Your task to perform on an android device: open app "Truecaller" (install if not already installed) Image 0: 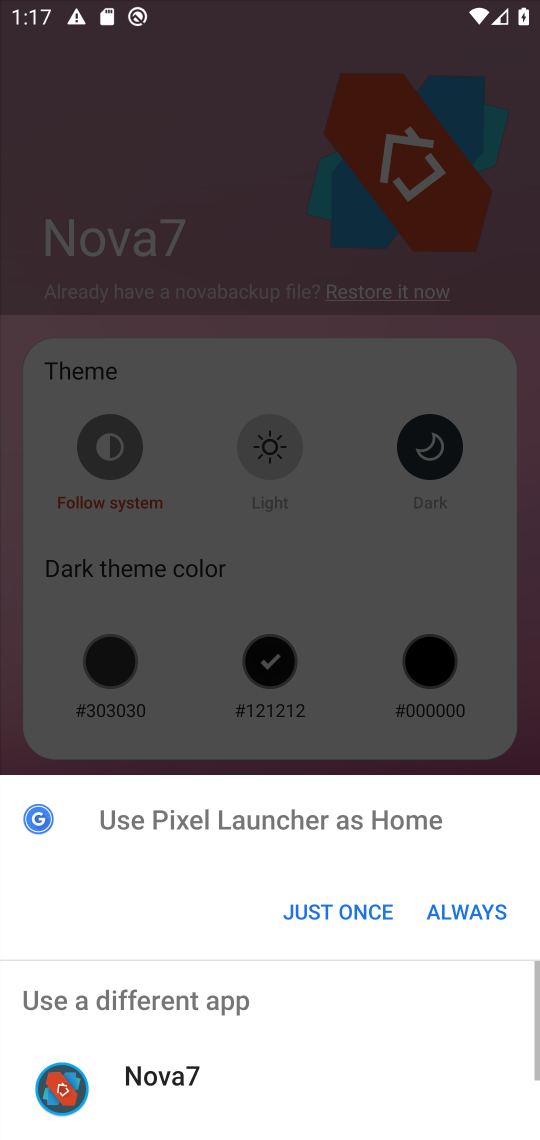
Step 0: press home button
Your task to perform on an android device: open app "Truecaller" (install if not already installed) Image 1: 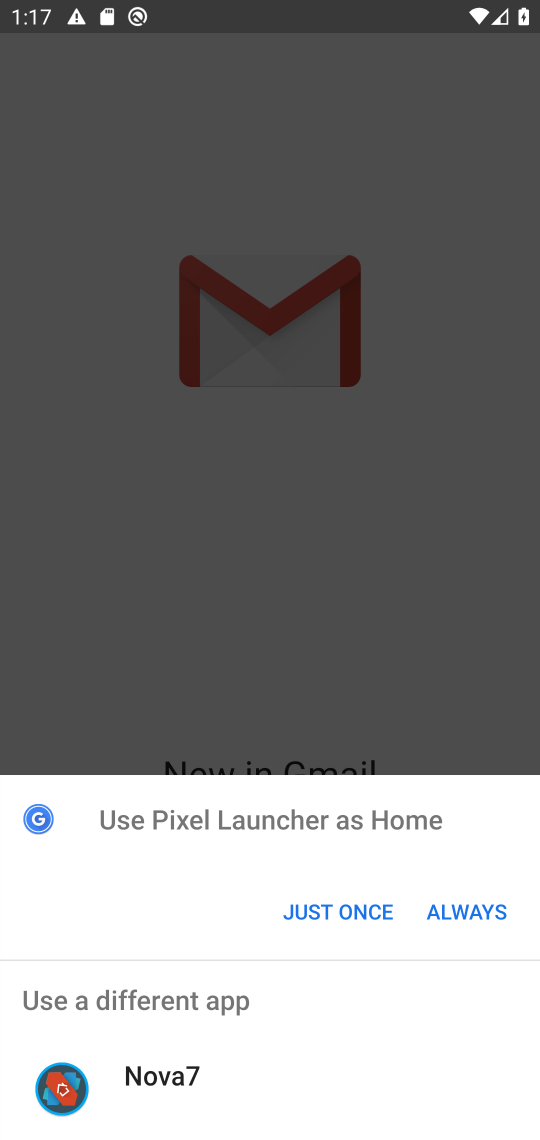
Step 1: click (355, 916)
Your task to perform on an android device: open app "Truecaller" (install if not already installed) Image 2: 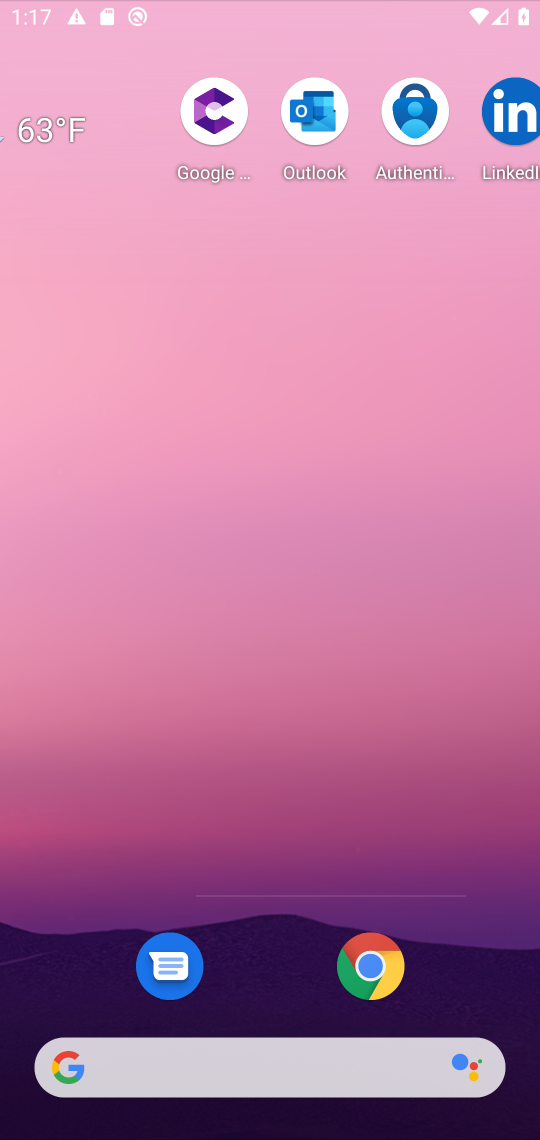
Step 2: press home button
Your task to perform on an android device: open app "Truecaller" (install if not already installed) Image 3: 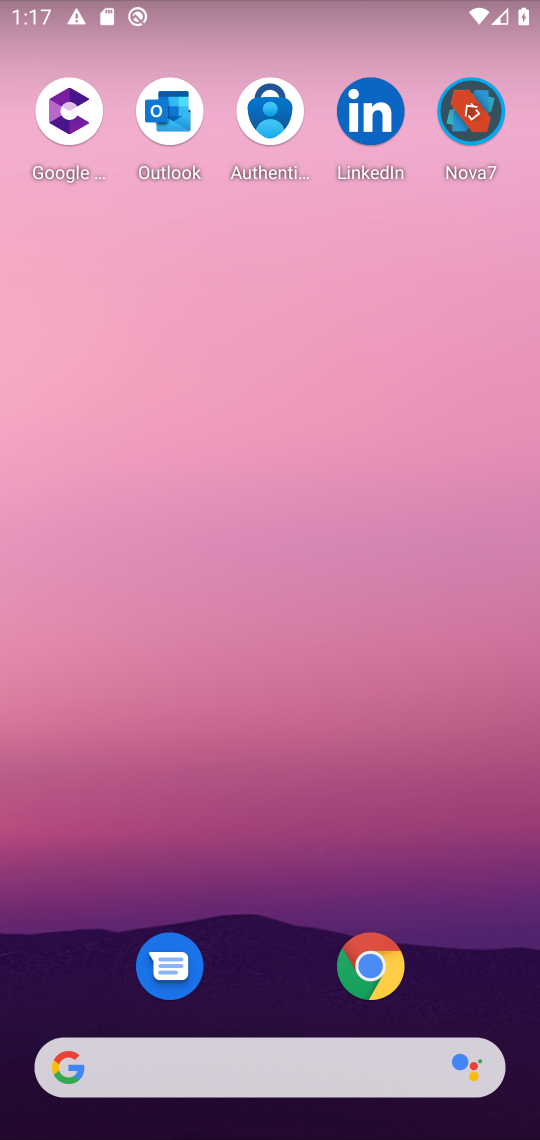
Step 3: click (347, 51)
Your task to perform on an android device: open app "Truecaller" (install if not already installed) Image 4: 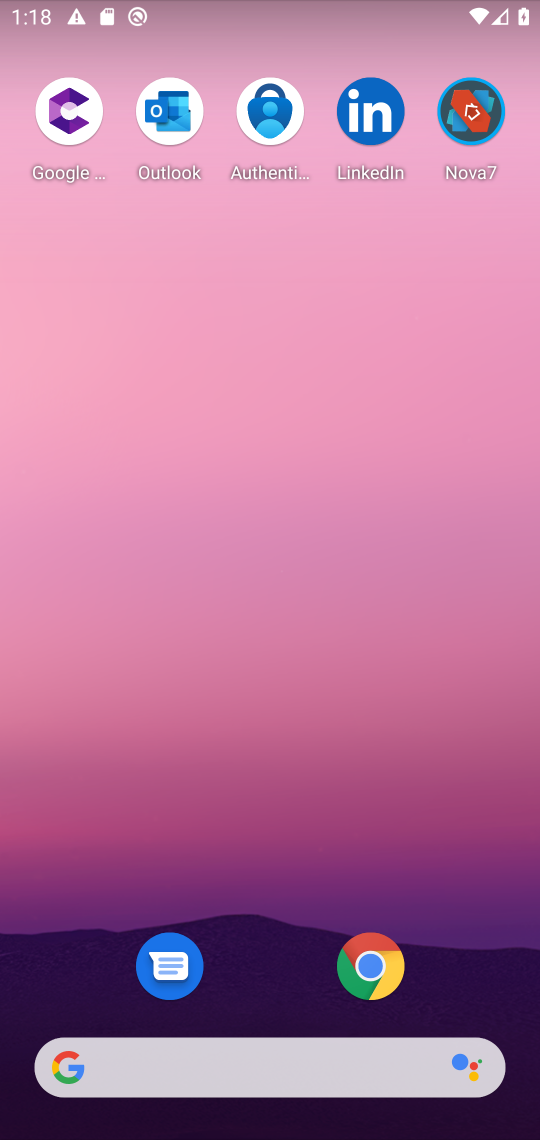
Step 4: drag from (281, 933) to (352, 40)
Your task to perform on an android device: open app "Truecaller" (install if not already installed) Image 5: 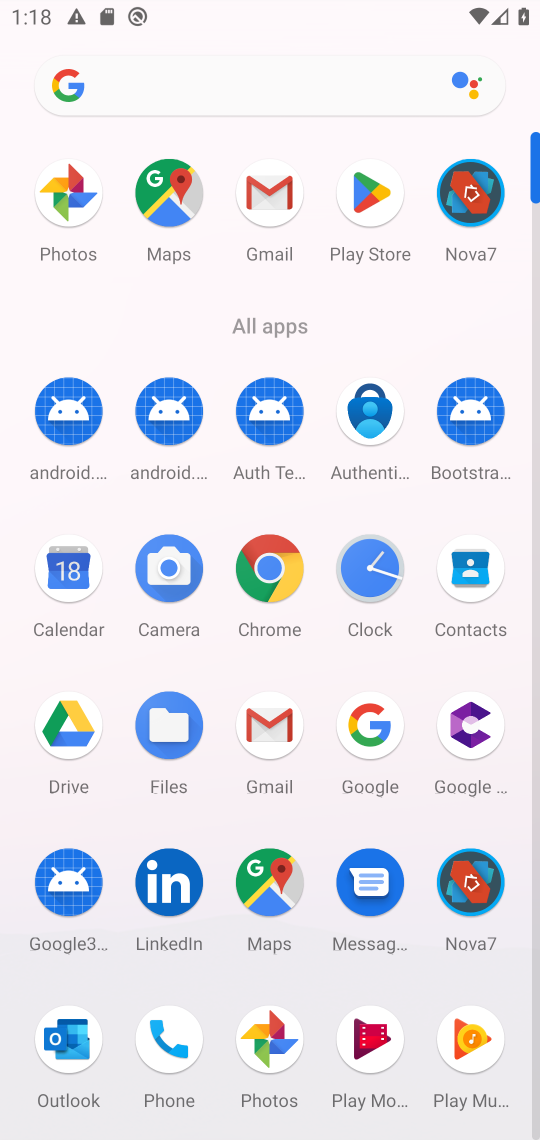
Step 5: click (374, 204)
Your task to perform on an android device: open app "Truecaller" (install if not already installed) Image 6: 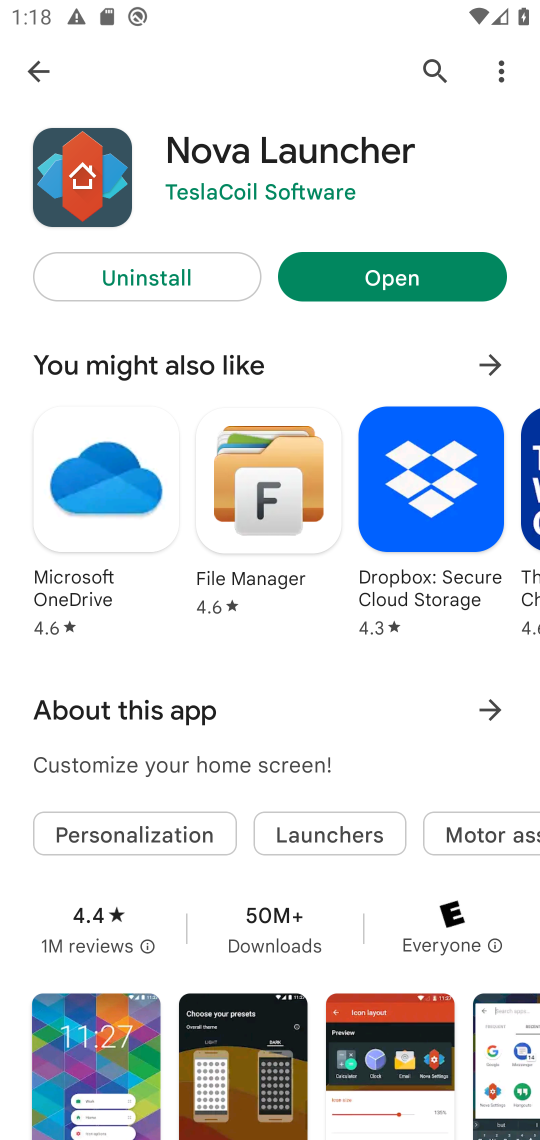
Step 6: click (443, 69)
Your task to perform on an android device: open app "Truecaller" (install if not already installed) Image 7: 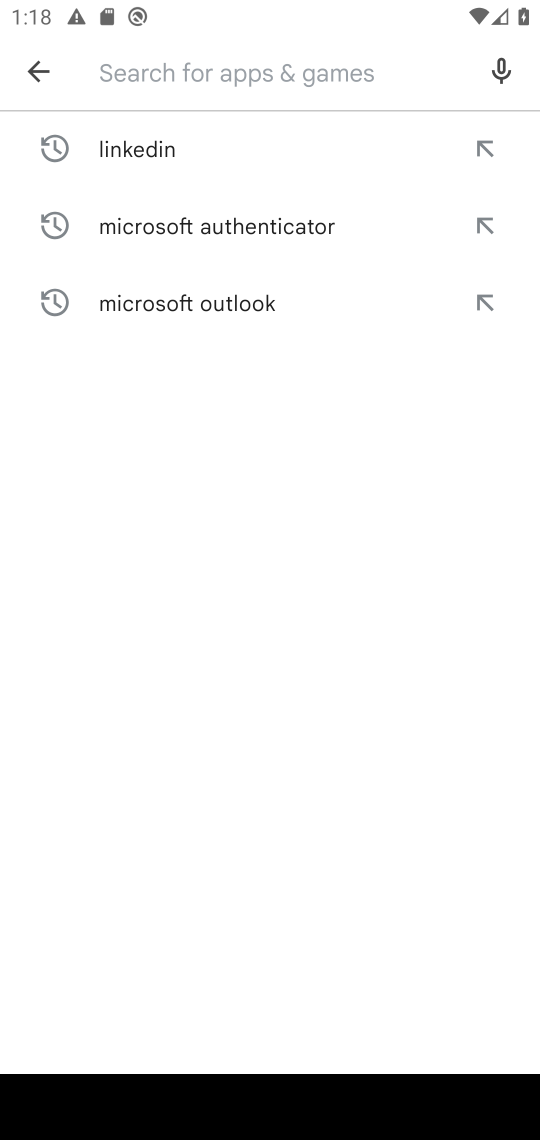
Step 7: type "Truecaller"
Your task to perform on an android device: open app "Truecaller" (install if not already installed) Image 8: 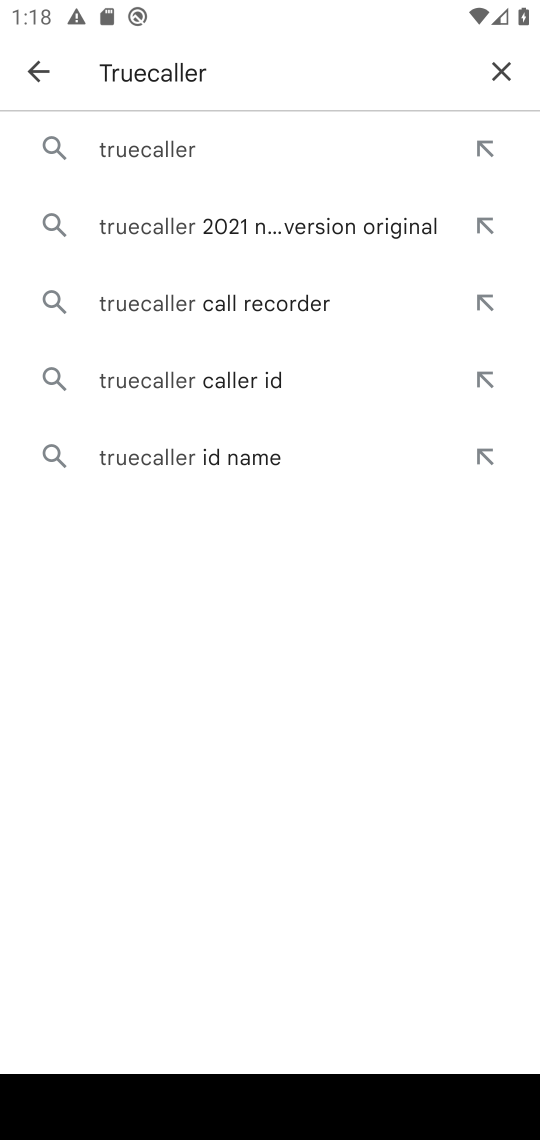
Step 8: click (233, 156)
Your task to perform on an android device: open app "Truecaller" (install if not already installed) Image 9: 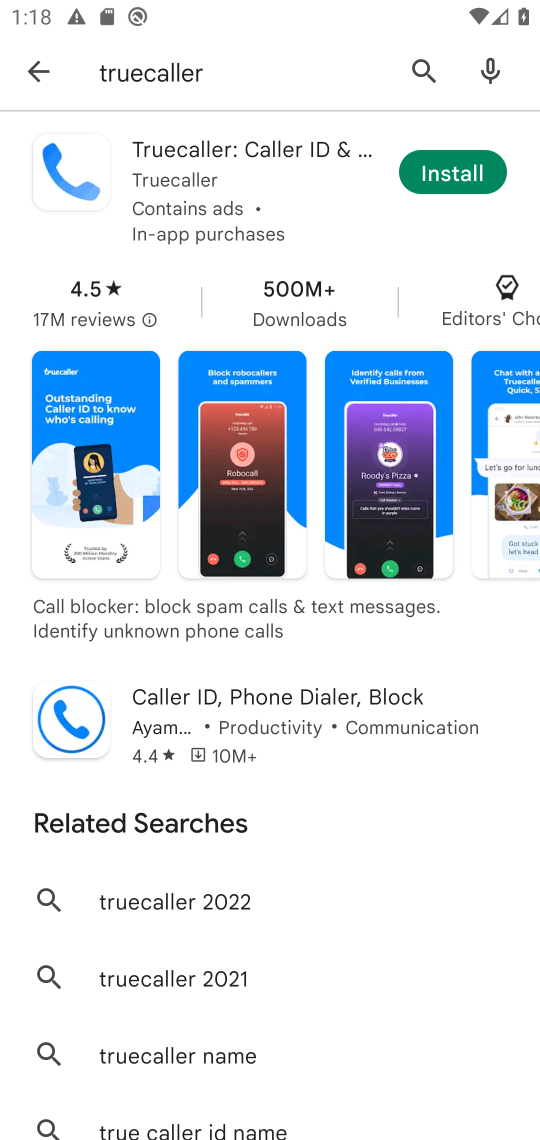
Step 9: click (447, 178)
Your task to perform on an android device: open app "Truecaller" (install if not already installed) Image 10: 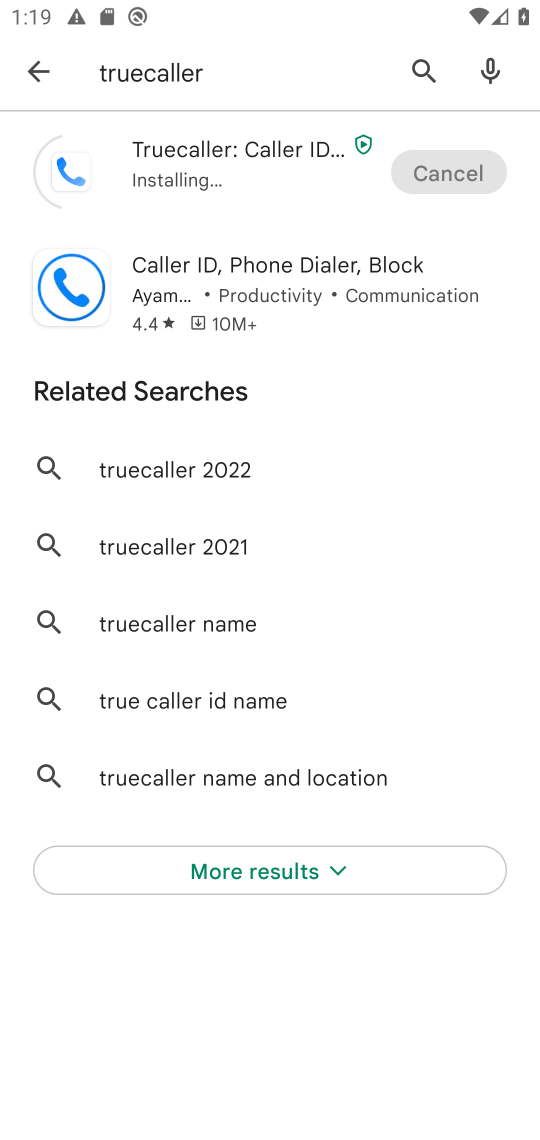
Step 10: click (218, 154)
Your task to perform on an android device: open app "Truecaller" (install if not already installed) Image 11: 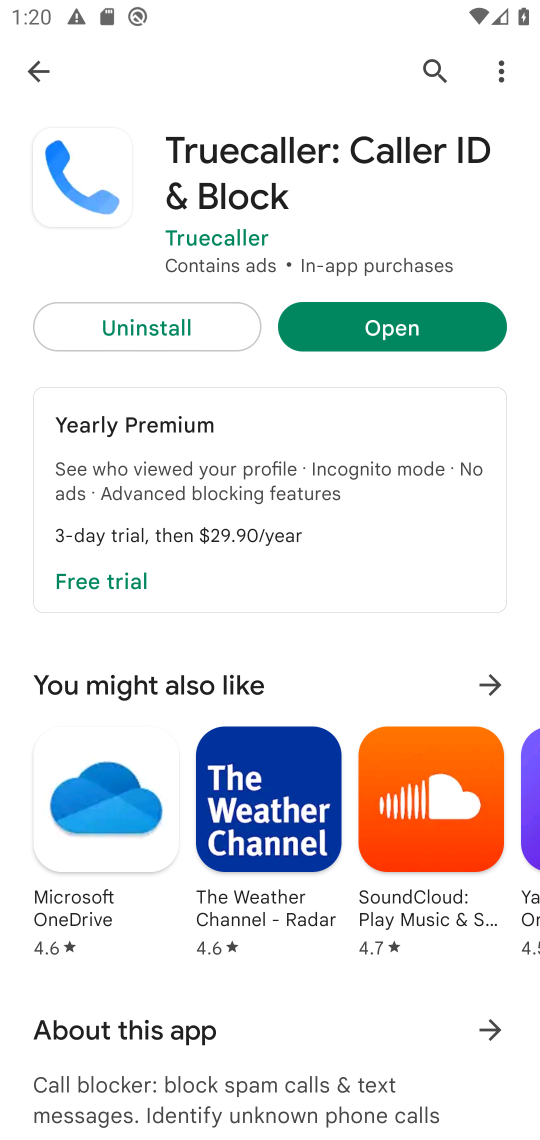
Step 11: click (397, 320)
Your task to perform on an android device: open app "Truecaller" (install if not already installed) Image 12: 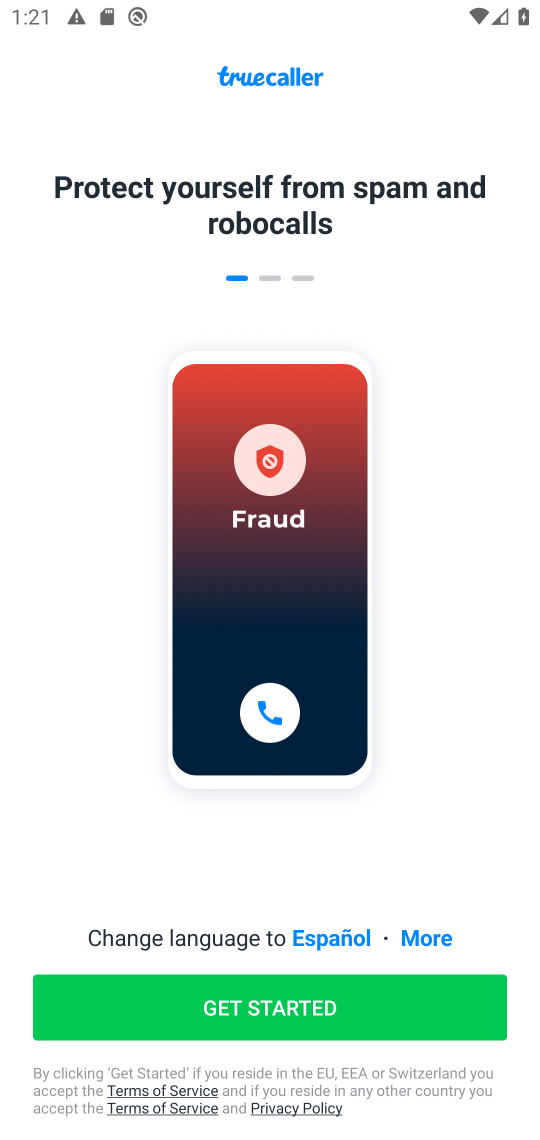
Step 12: click (253, 1007)
Your task to perform on an android device: open app "Truecaller" (install if not already installed) Image 13: 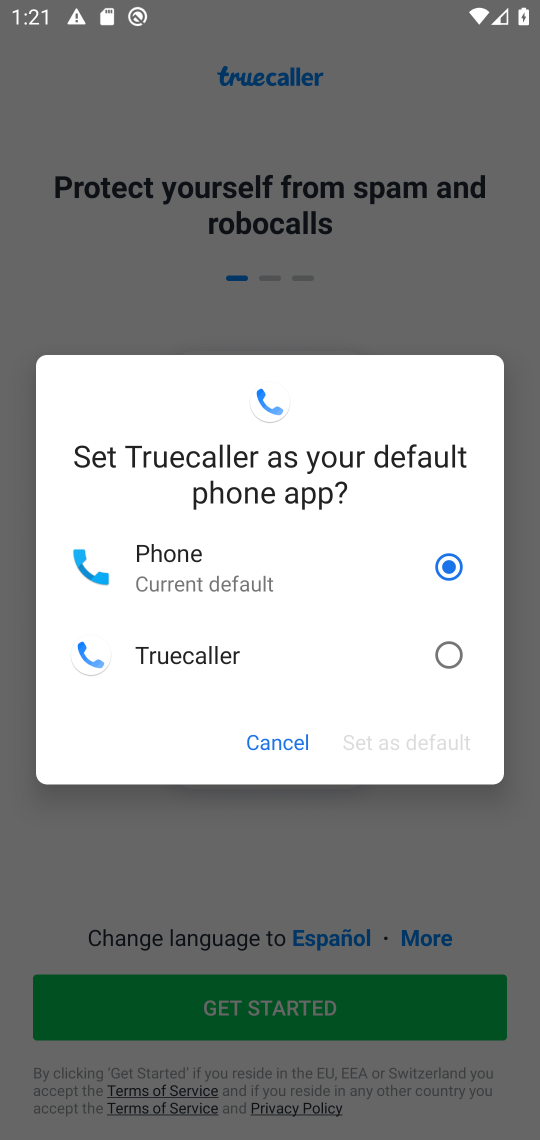
Step 13: click (443, 648)
Your task to perform on an android device: open app "Truecaller" (install if not already installed) Image 14: 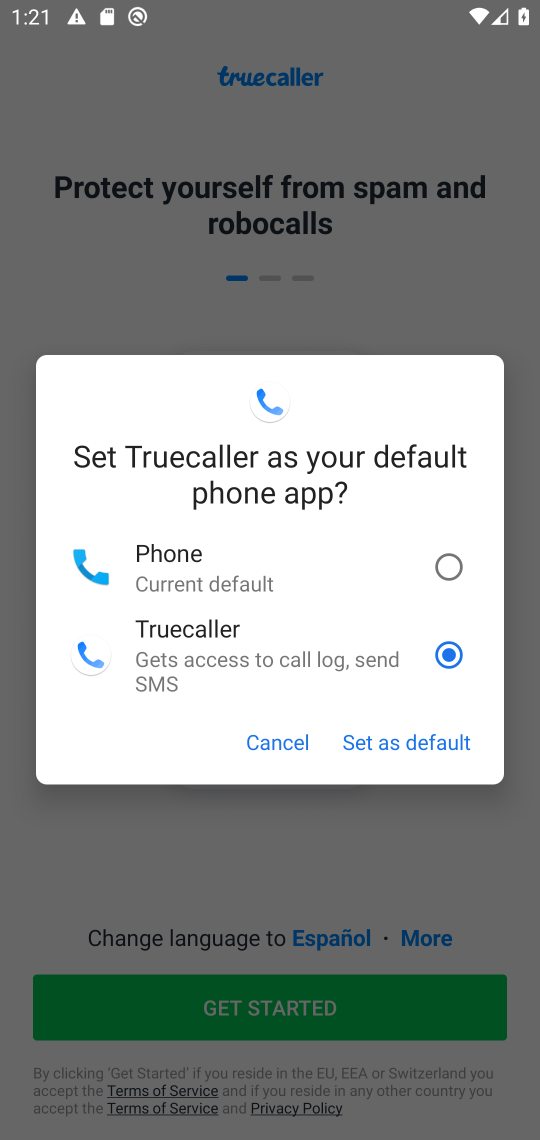
Step 14: click (438, 733)
Your task to perform on an android device: open app "Truecaller" (install if not already installed) Image 15: 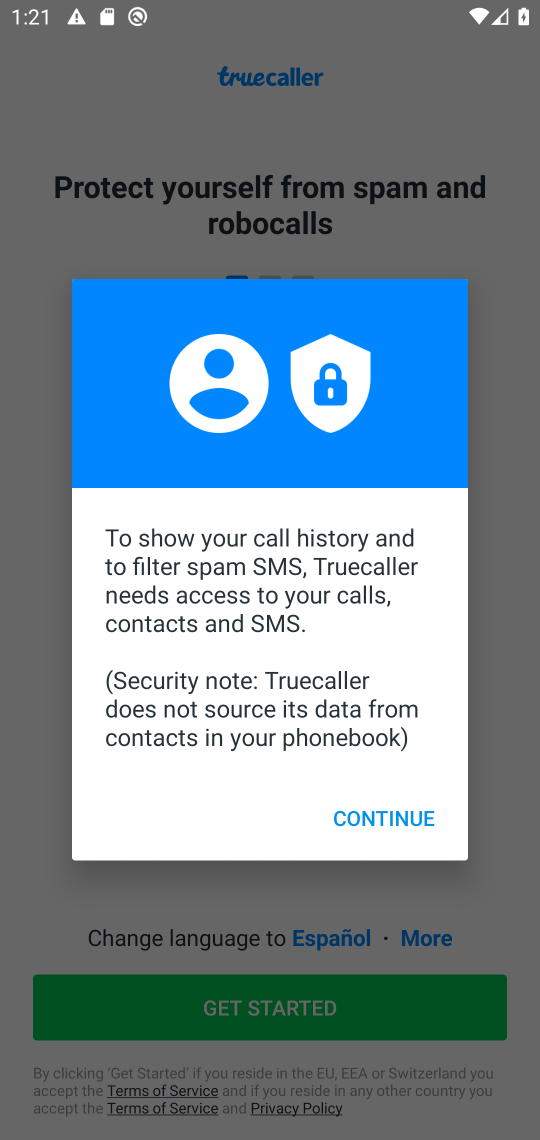
Step 15: click (363, 820)
Your task to perform on an android device: open app "Truecaller" (install if not already installed) Image 16: 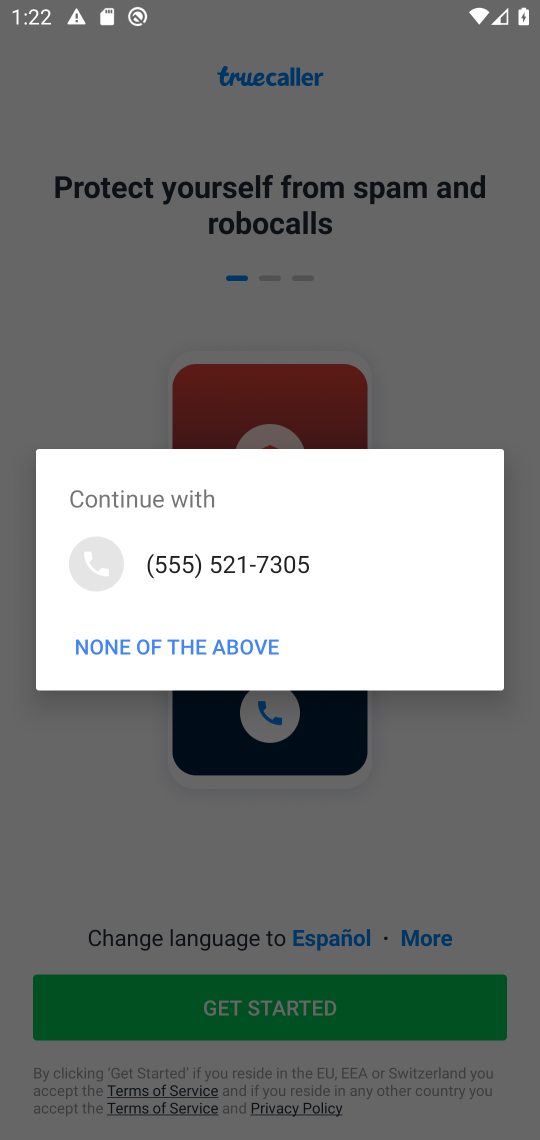
Step 16: task complete